Your task to perform on an android device: read, delete, or share a saved page in the chrome app Image 0: 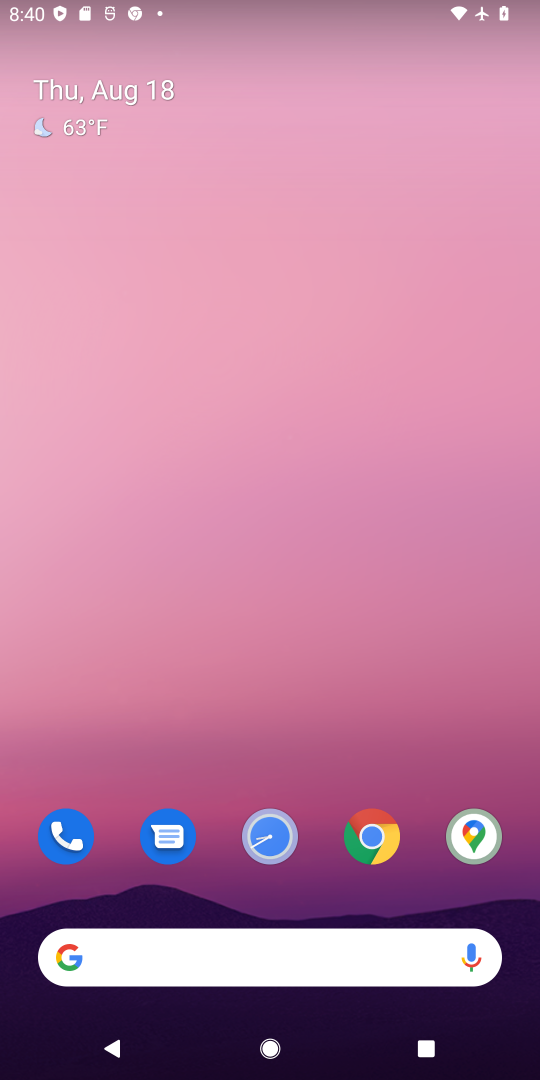
Step 0: click (506, 197)
Your task to perform on an android device: read, delete, or share a saved page in the chrome app Image 1: 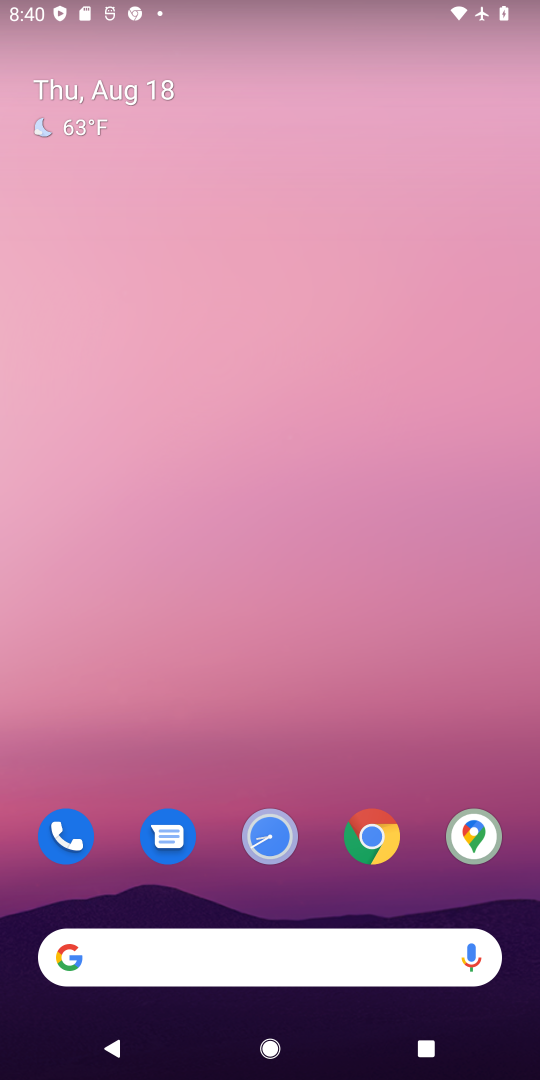
Step 1: drag from (313, 904) to (322, 59)
Your task to perform on an android device: read, delete, or share a saved page in the chrome app Image 2: 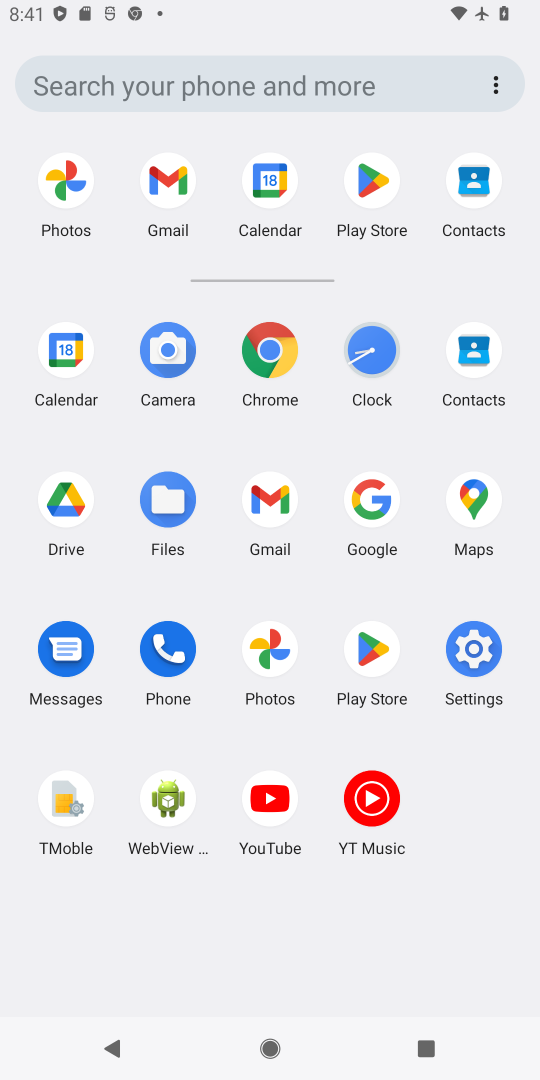
Step 2: click (271, 355)
Your task to perform on an android device: read, delete, or share a saved page in the chrome app Image 3: 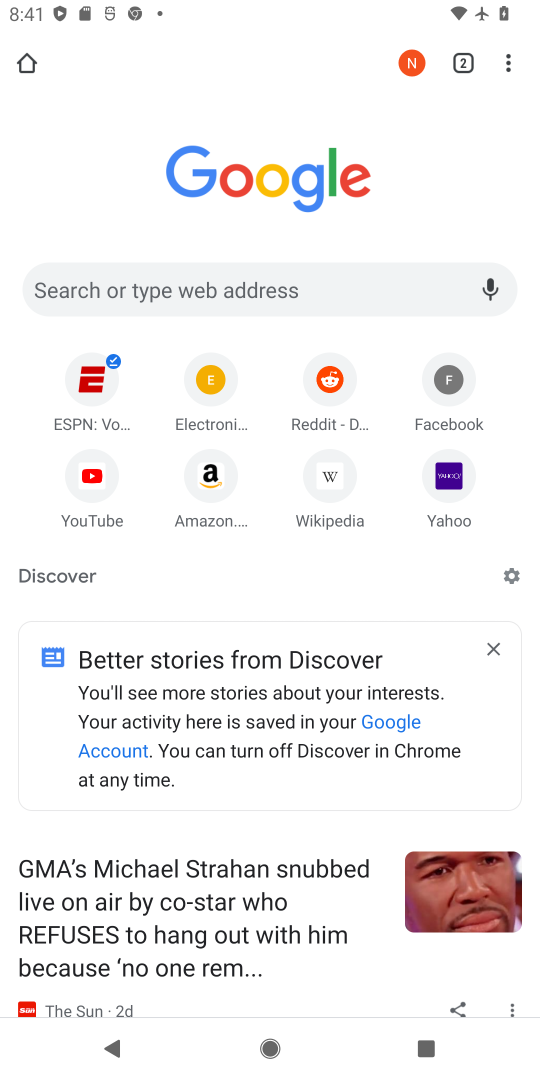
Step 3: drag from (509, 53) to (377, 319)
Your task to perform on an android device: read, delete, or share a saved page in the chrome app Image 4: 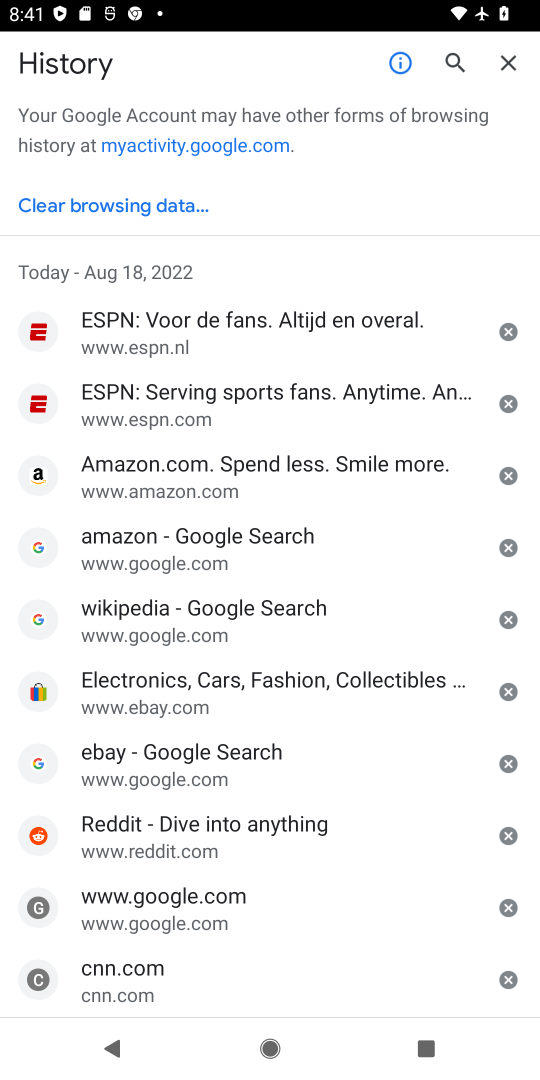
Step 4: click (504, 57)
Your task to perform on an android device: read, delete, or share a saved page in the chrome app Image 5: 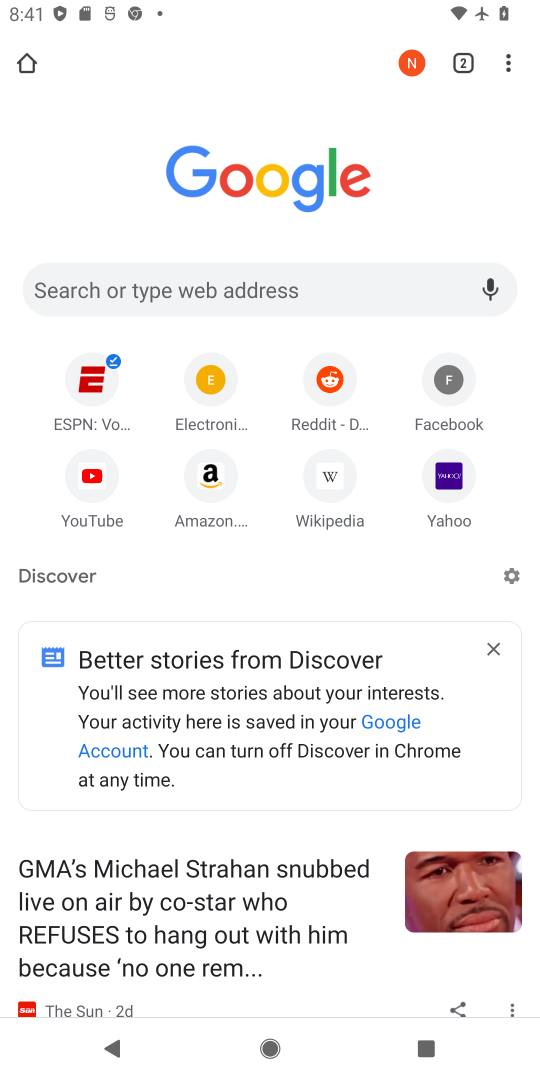
Step 5: task complete